Your task to perform on an android device: turn off notifications in google photos Image 0: 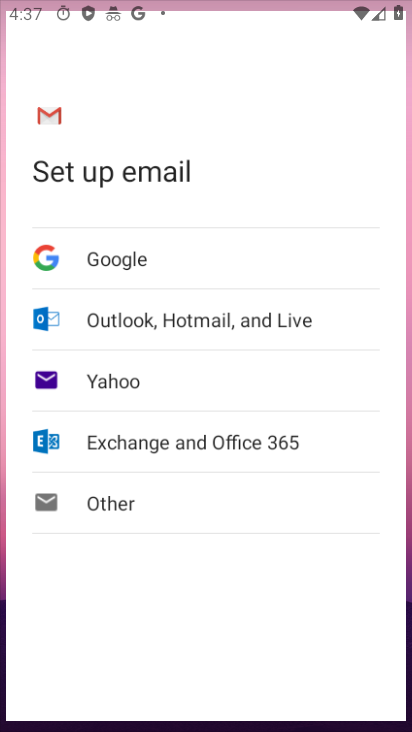
Step 0: click (126, 595)
Your task to perform on an android device: turn off notifications in google photos Image 1: 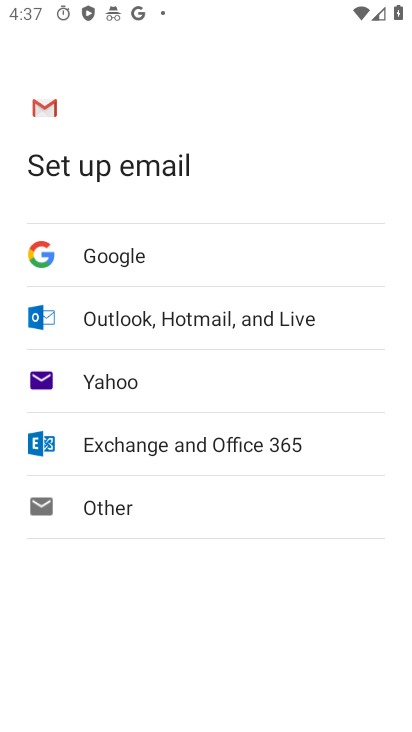
Step 1: press back button
Your task to perform on an android device: turn off notifications in google photos Image 2: 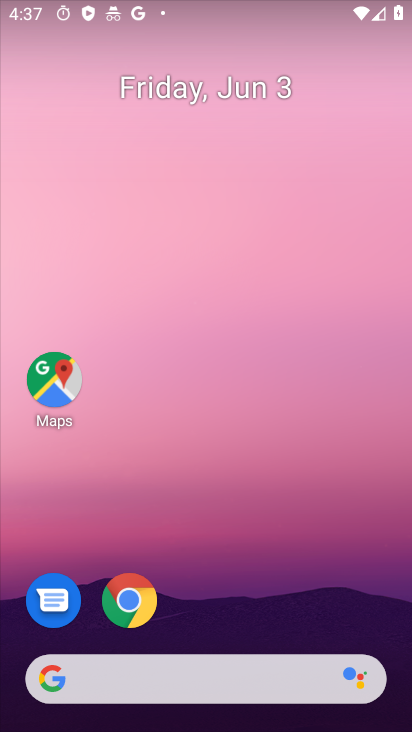
Step 2: drag from (387, 647) to (268, 20)
Your task to perform on an android device: turn off notifications in google photos Image 3: 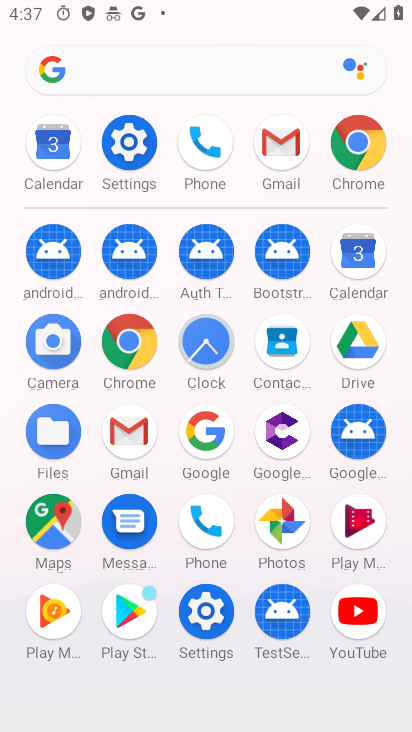
Step 3: click (276, 534)
Your task to perform on an android device: turn off notifications in google photos Image 4: 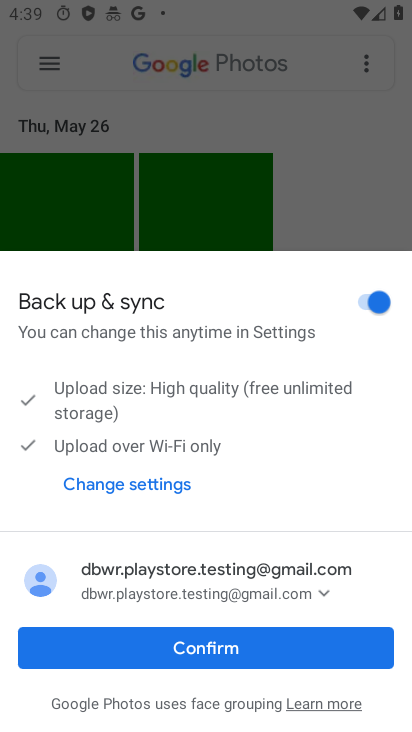
Step 4: click (249, 648)
Your task to perform on an android device: turn off notifications in google photos Image 5: 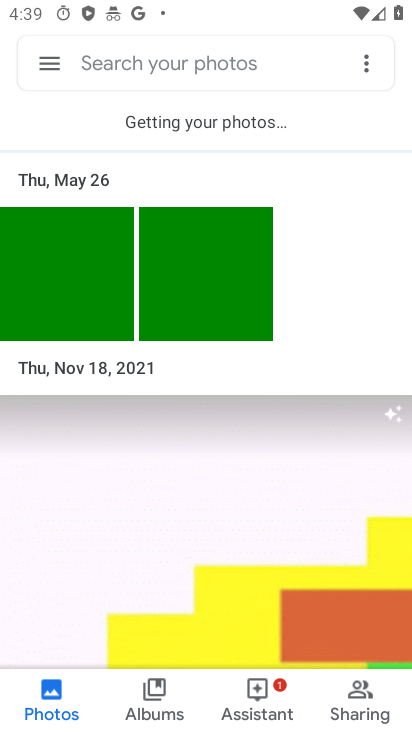
Step 5: click (45, 56)
Your task to perform on an android device: turn off notifications in google photos Image 6: 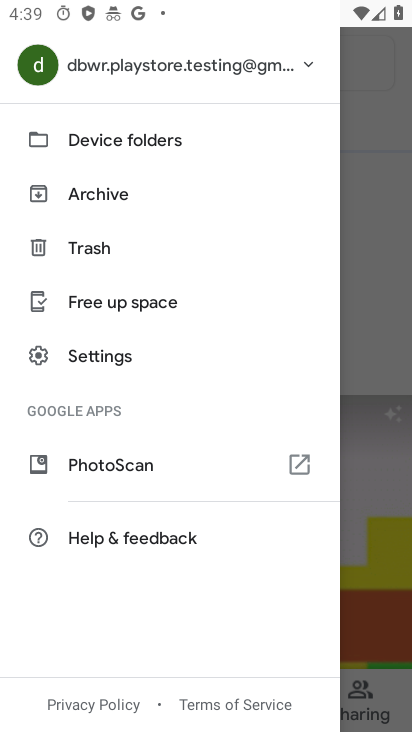
Step 6: click (79, 350)
Your task to perform on an android device: turn off notifications in google photos Image 7: 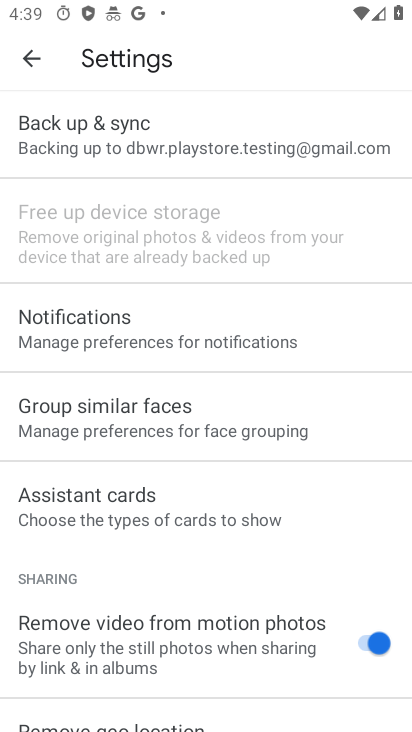
Step 7: click (90, 314)
Your task to perform on an android device: turn off notifications in google photos Image 8: 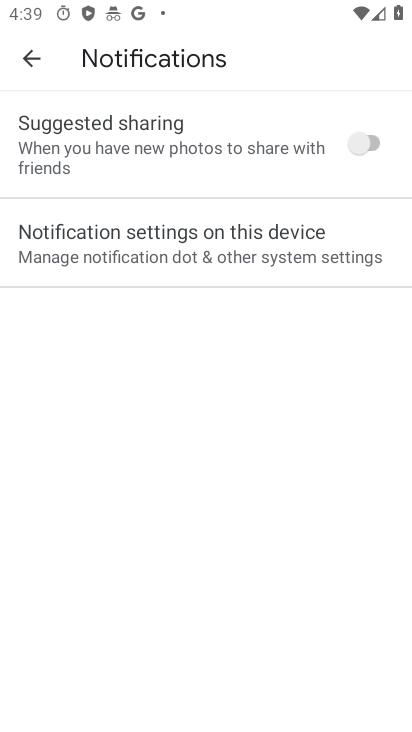
Step 8: click (255, 222)
Your task to perform on an android device: turn off notifications in google photos Image 9: 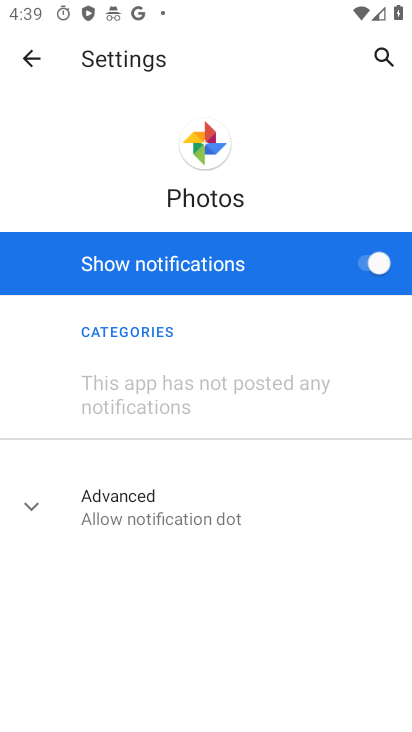
Step 9: click (354, 260)
Your task to perform on an android device: turn off notifications in google photos Image 10: 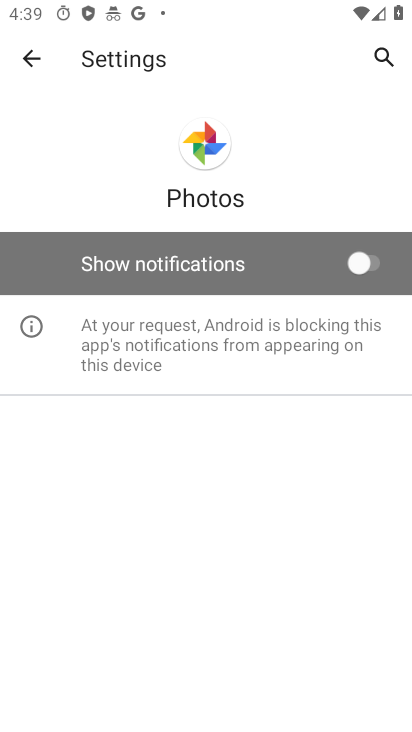
Step 10: task complete